Your task to perform on an android device: toggle pop-ups in chrome Image 0: 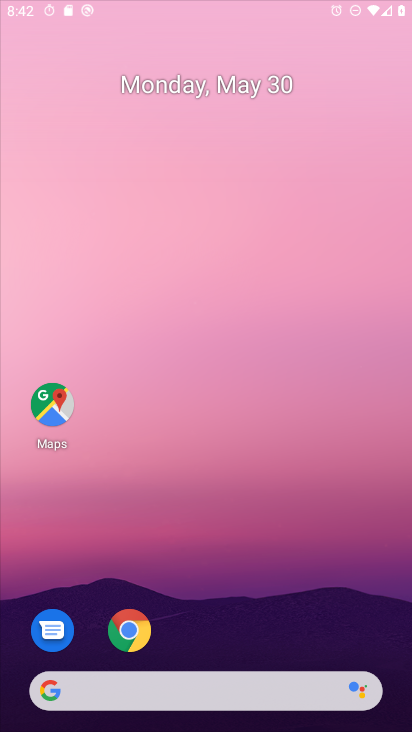
Step 0: click (220, 8)
Your task to perform on an android device: toggle pop-ups in chrome Image 1: 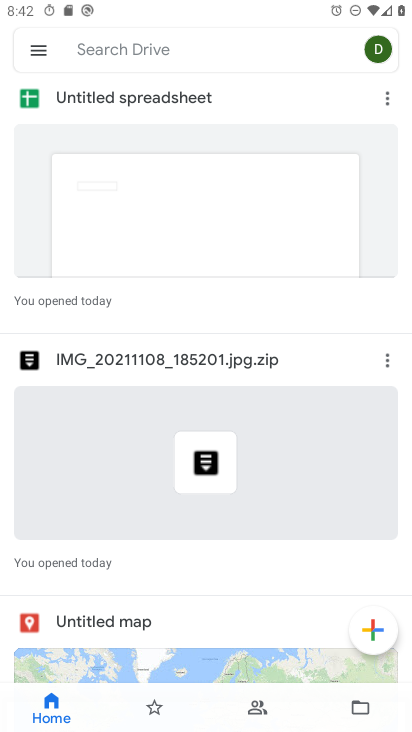
Step 1: press home button
Your task to perform on an android device: toggle pop-ups in chrome Image 2: 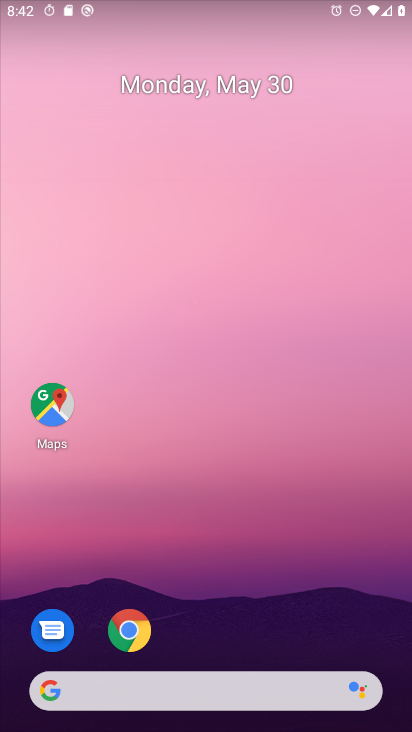
Step 2: drag from (387, 628) to (229, 20)
Your task to perform on an android device: toggle pop-ups in chrome Image 3: 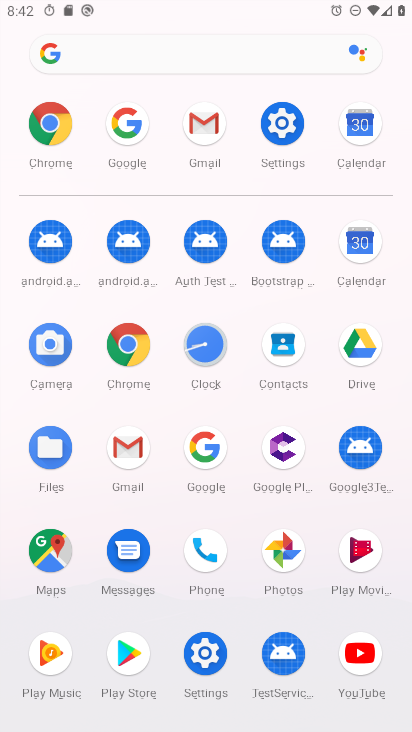
Step 3: click (49, 123)
Your task to perform on an android device: toggle pop-ups in chrome Image 4: 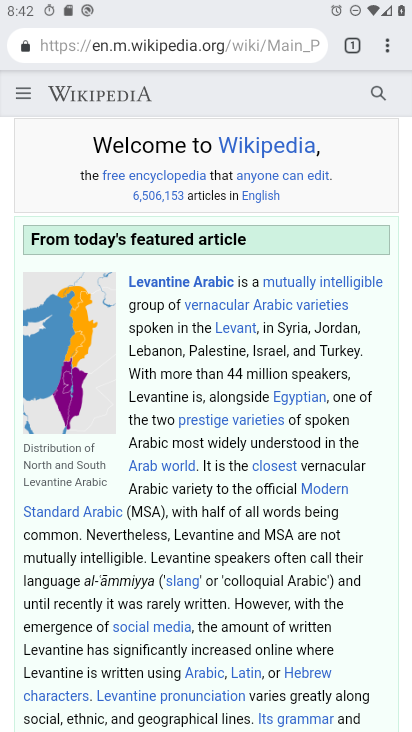
Step 4: press back button
Your task to perform on an android device: toggle pop-ups in chrome Image 5: 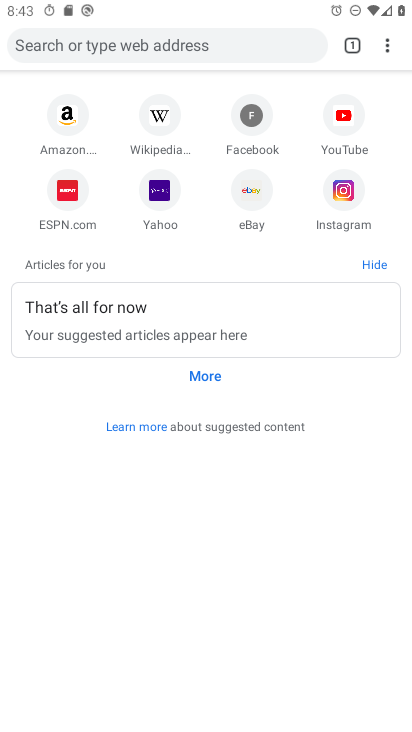
Step 5: click (383, 35)
Your task to perform on an android device: toggle pop-ups in chrome Image 6: 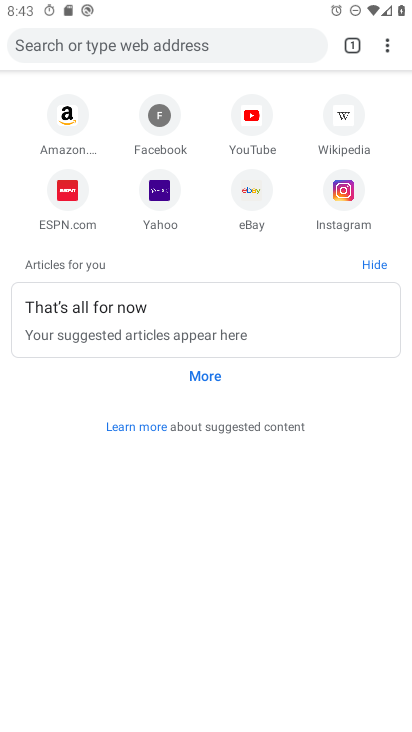
Step 6: click (389, 41)
Your task to perform on an android device: toggle pop-ups in chrome Image 7: 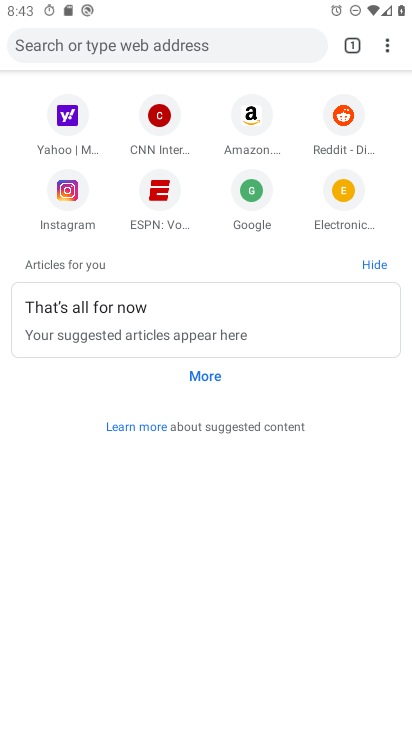
Step 7: click (389, 41)
Your task to perform on an android device: toggle pop-ups in chrome Image 8: 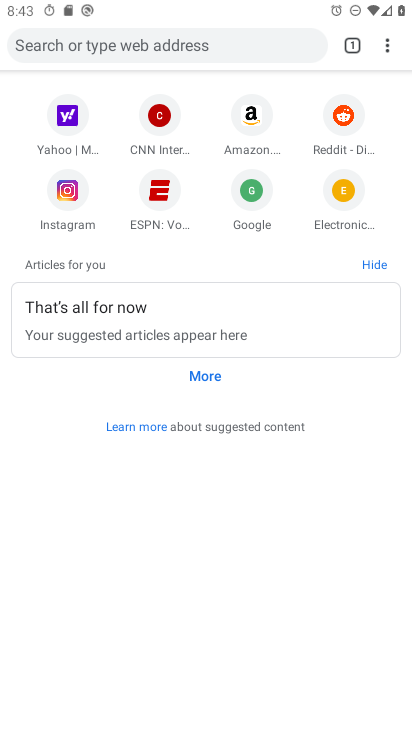
Step 8: click (379, 46)
Your task to perform on an android device: toggle pop-ups in chrome Image 9: 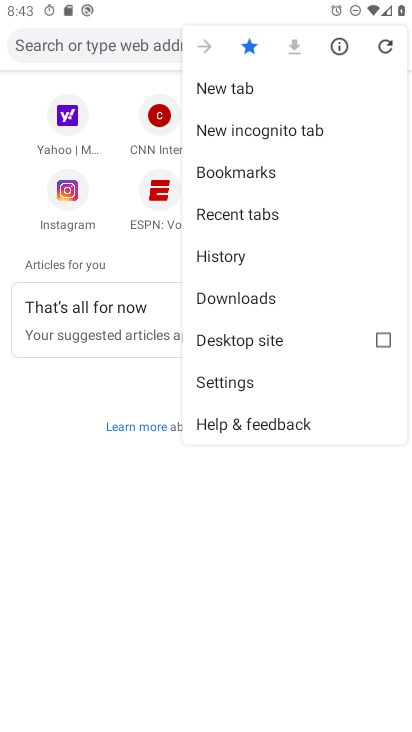
Step 9: click (264, 378)
Your task to perform on an android device: toggle pop-ups in chrome Image 10: 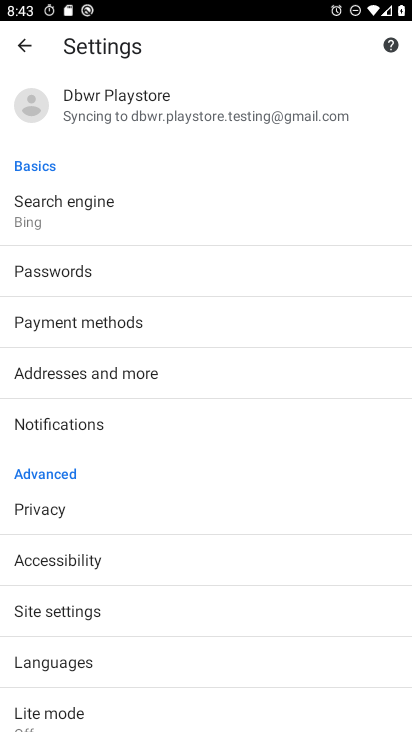
Step 10: click (62, 617)
Your task to perform on an android device: toggle pop-ups in chrome Image 11: 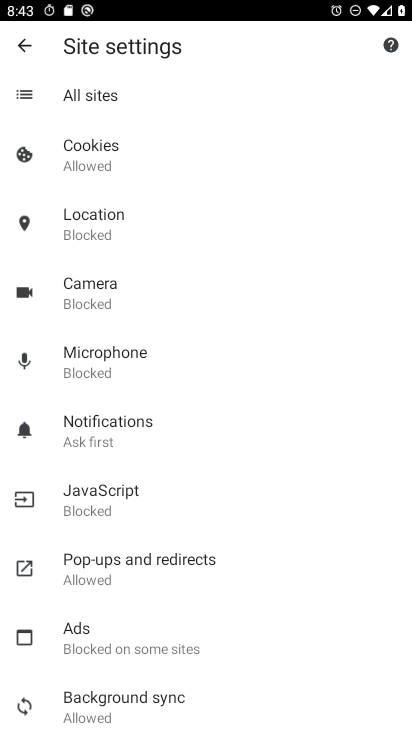
Step 11: click (112, 574)
Your task to perform on an android device: toggle pop-ups in chrome Image 12: 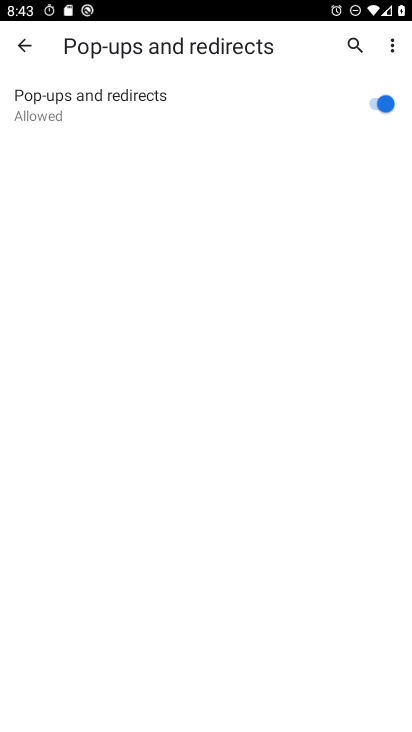
Step 12: click (358, 113)
Your task to perform on an android device: toggle pop-ups in chrome Image 13: 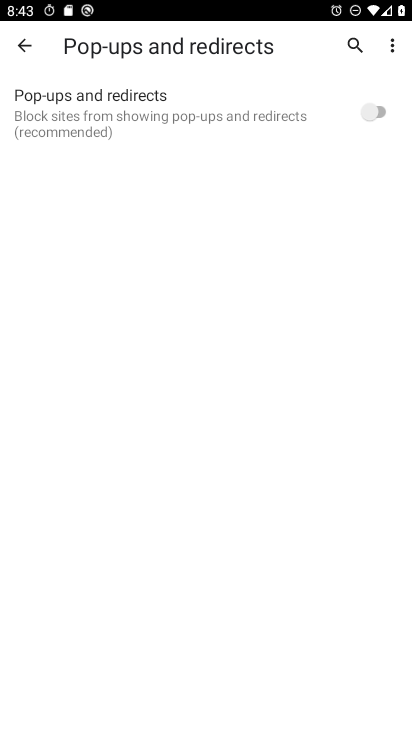
Step 13: task complete